Your task to perform on an android device: Go to CNN.com Image 0: 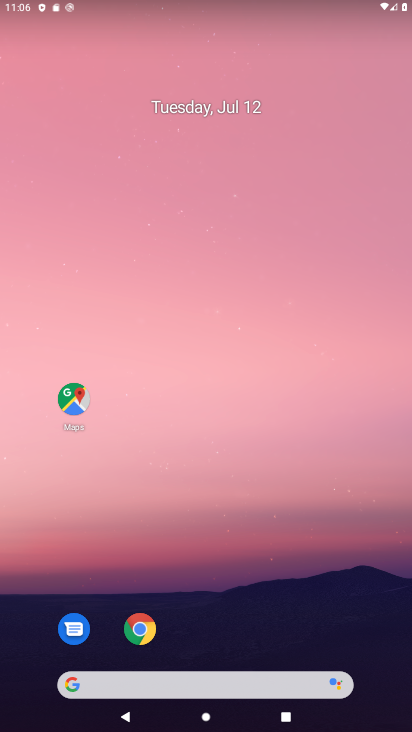
Step 0: drag from (267, 507) to (221, 102)
Your task to perform on an android device: Go to CNN.com Image 1: 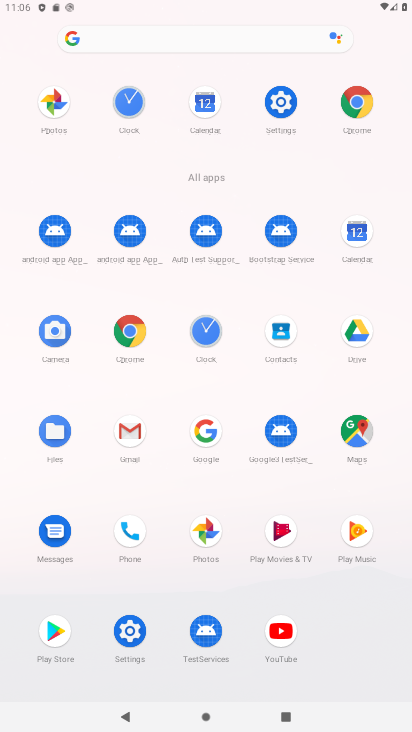
Step 1: click (120, 324)
Your task to perform on an android device: Go to CNN.com Image 2: 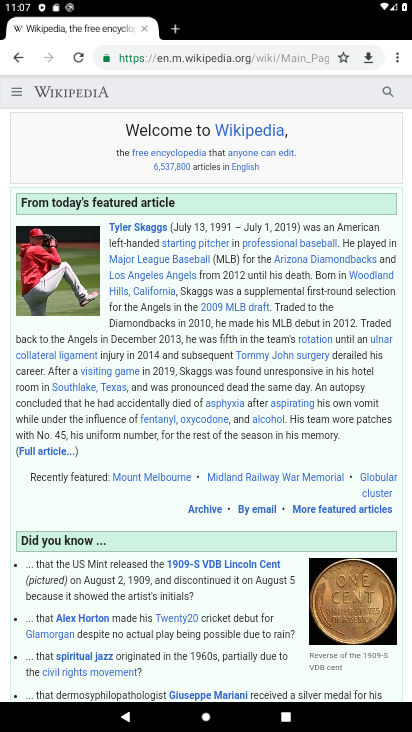
Step 2: click (402, 49)
Your task to perform on an android device: Go to CNN.com Image 3: 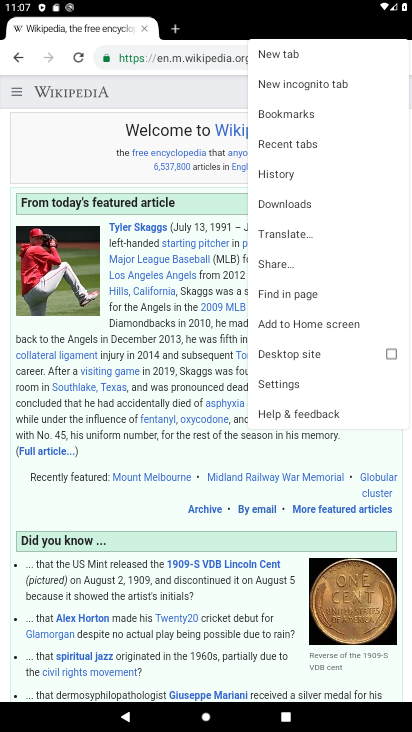
Step 3: click (286, 57)
Your task to perform on an android device: Go to CNN.com Image 4: 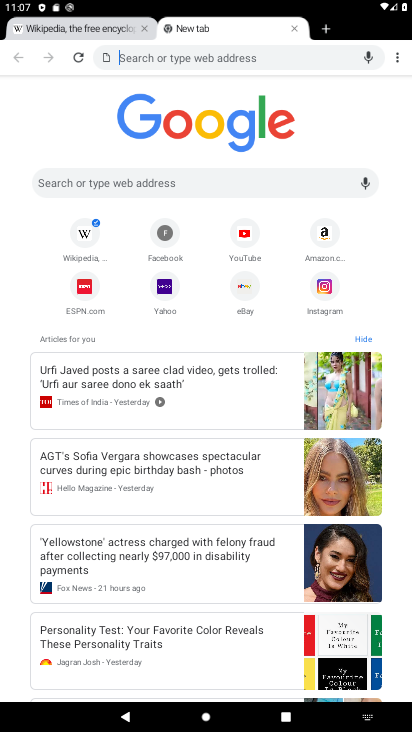
Step 4: click (155, 189)
Your task to perform on an android device: Go to CNN.com Image 5: 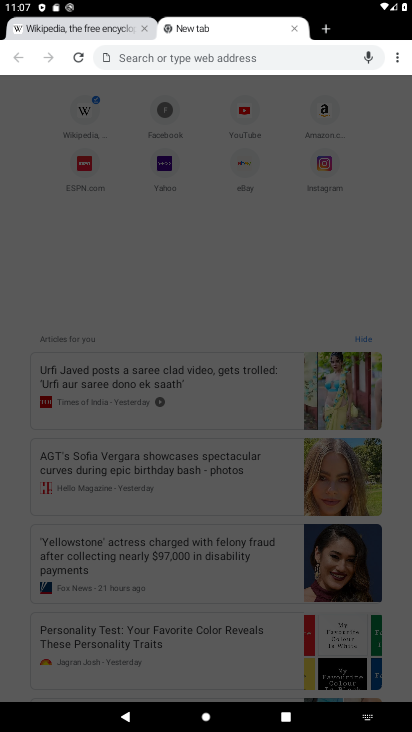
Step 5: type "cnn.com"
Your task to perform on an android device: Go to CNN.com Image 6: 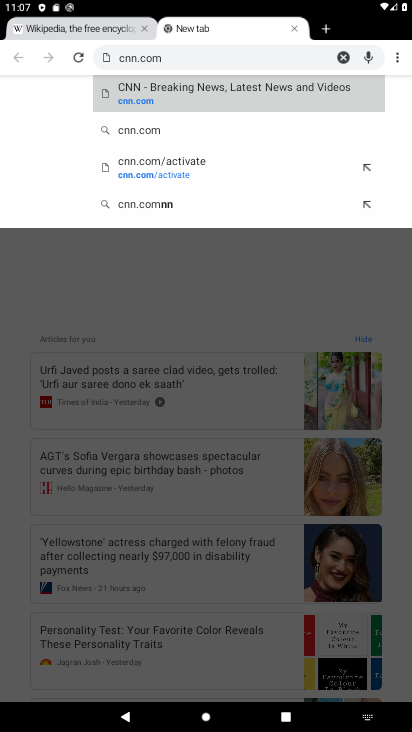
Step 6: click (131, 90)
Your task to perform on an android device: Go to CNN.com Image 7: 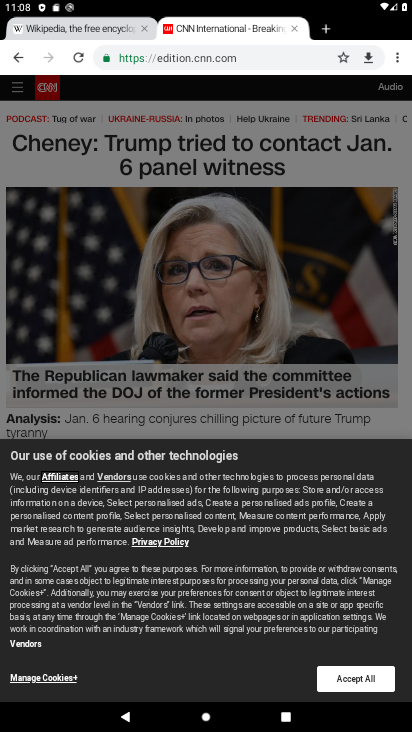
Step 7: task complete